Your task to perform on an android device: toggle show notifications on the lock screen Image 0: 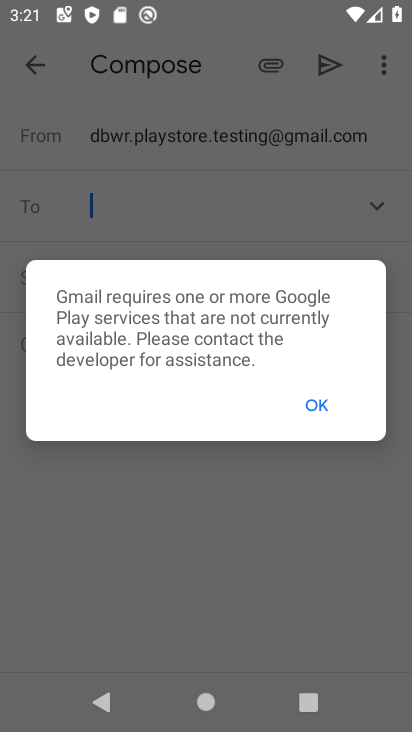
Step 0: press home button
Your task to perform on an android device: toggle show notifications on the lock screen Image 1: 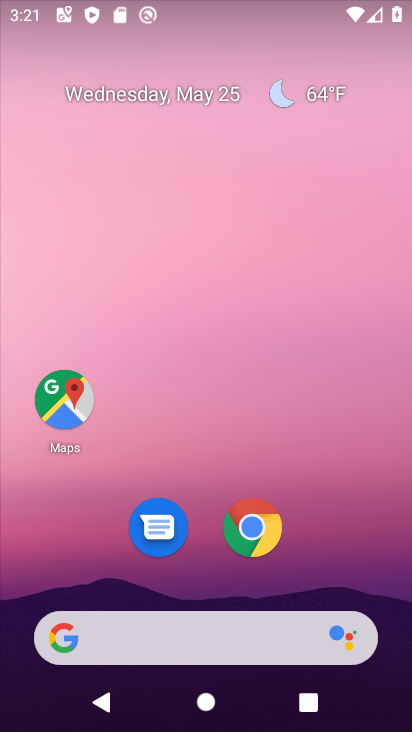
Step 1: drag from (175, 562) to (275, 0)
Your task to perform on an android device: toggle show notifications on the lock screen Image 2: 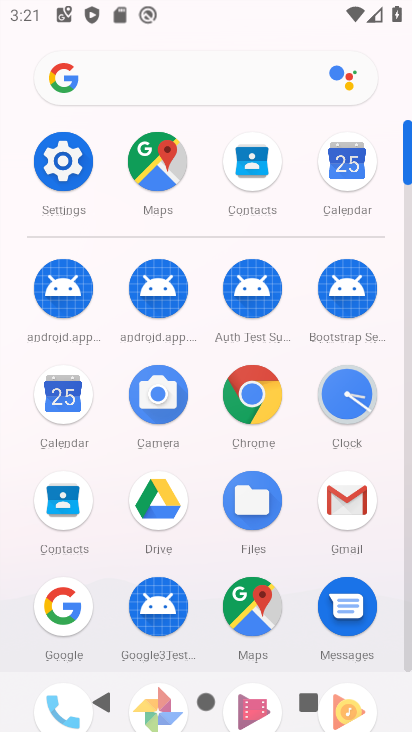
Step 2: click (57, 167)
Your task to perform on an android device: toggle show notifications on the lock screen Image 3: 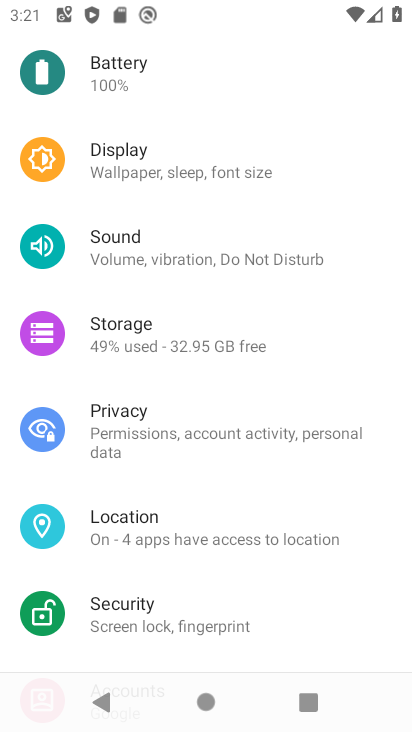
Step 3: drag from (330, 162) to (166, 654)
Your task to perform on an android device: toggle show notifications on the lock screen Image 4: 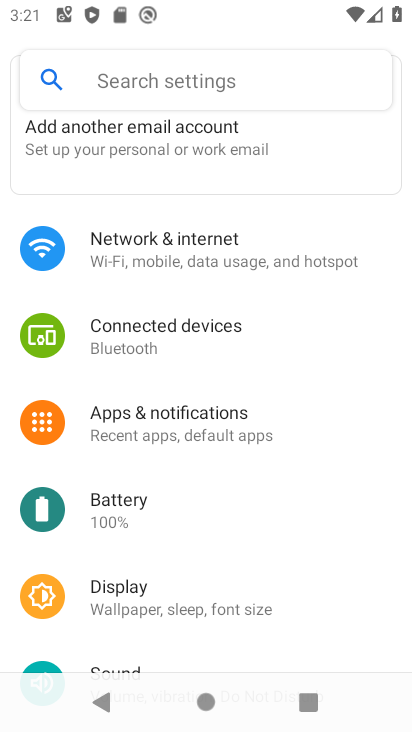
Step 4: click (183, 245)
Your task to perform on an android device: toggle show notifications on the lock screen Image 5: 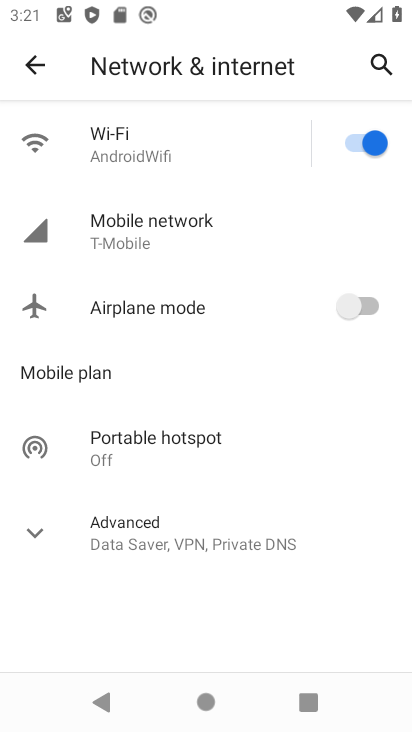
Step 5: click (15, 50)
Your task to perform on an android device: toggle show notifications on the lock screen Image 6: 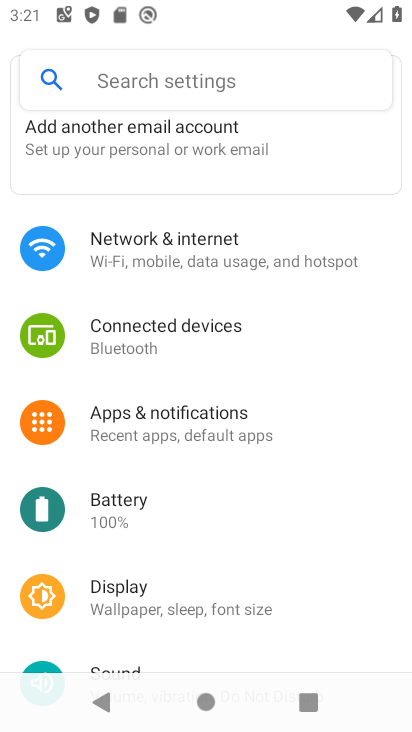
Step 6: click (171, 435)
Your task to perform on an android device: toggle show notifications on the lock screen Image 7: 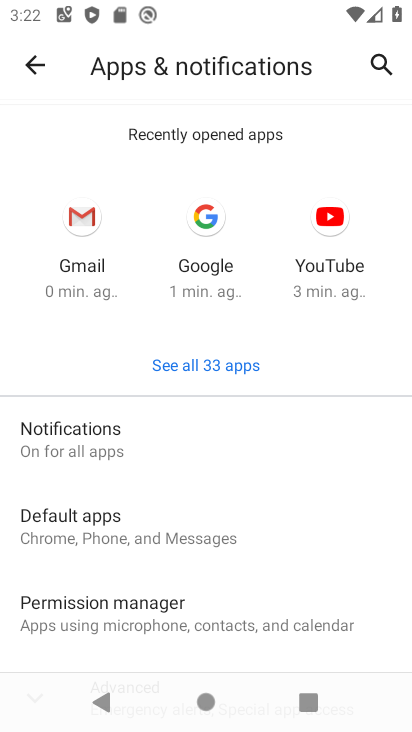
Step 7: drag from (126, 583) to (190, 18)
Your task to perform on an android device: toggle show notifications on the lock screen Image 8: 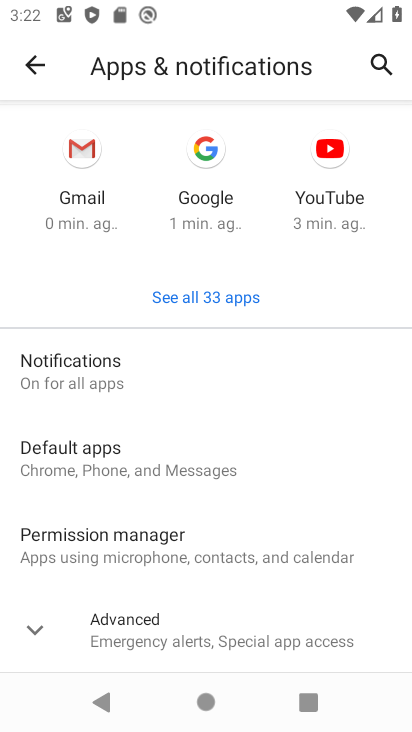
Step 8: drag from (175, 608) to (315, 92)
Your task to perform on an android device: toggle show notifications on the lock screen Image 9: 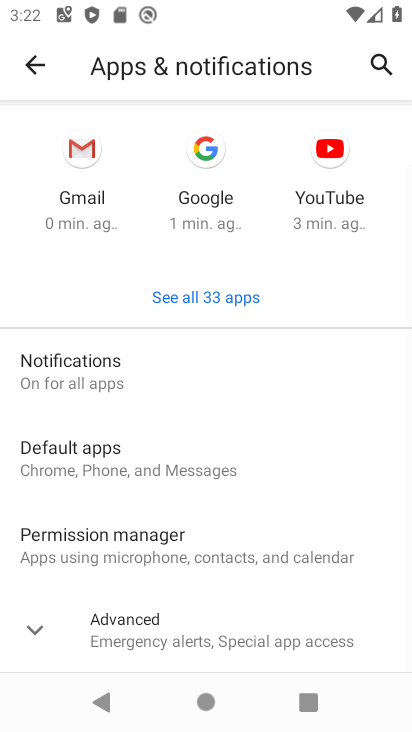
Step 9: click (173, 620)
Your task to perform on an android device: toggle show notifications on the lock screen Image 10: 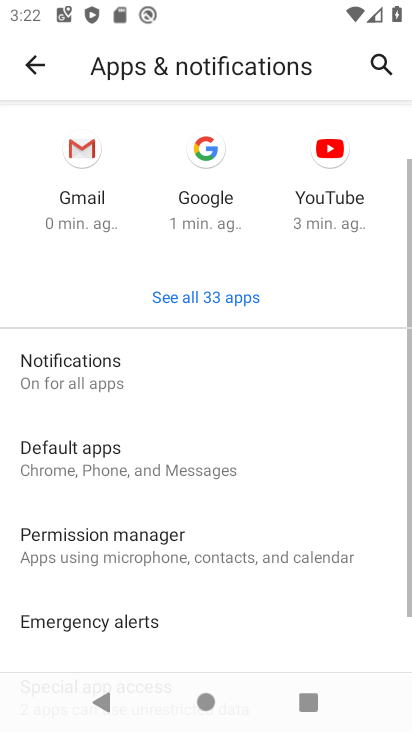
Step 10: drag from (193, 613) to (260, 75)
Your task to perform on an android device: toggle show notifications on the lock screen Image 11: 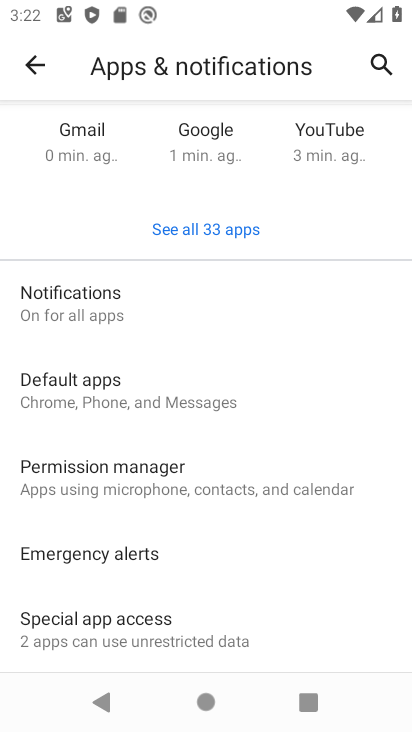
Step 11: click (137, 293)
Your task to perform on an android device: toggle show notifications on the lock screen Image 12: 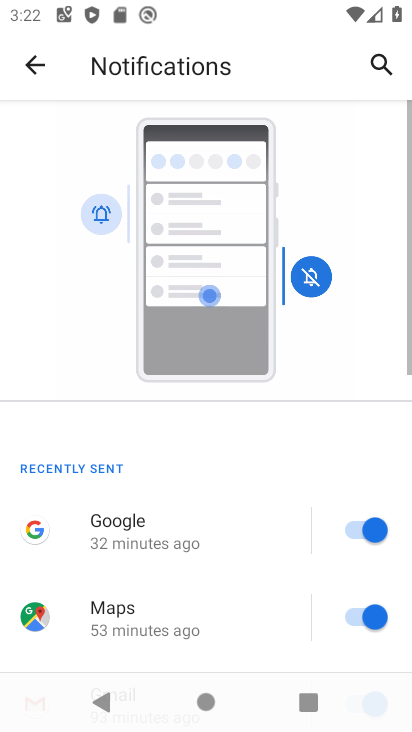
Step 12: drag from (162, 592) to (238, 15)
Your task to perform on an android device: toggle show notifications on the lock screen Image 13: 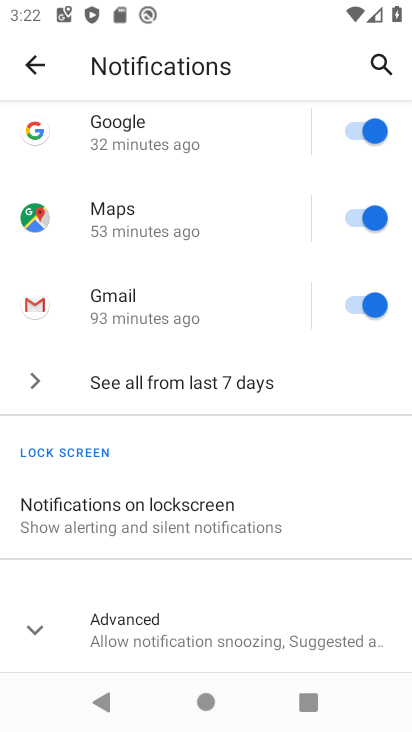
Step 13: click (142, 511)
Your task to perform on an android device: toggle show notifications on the lock screen Image 14: 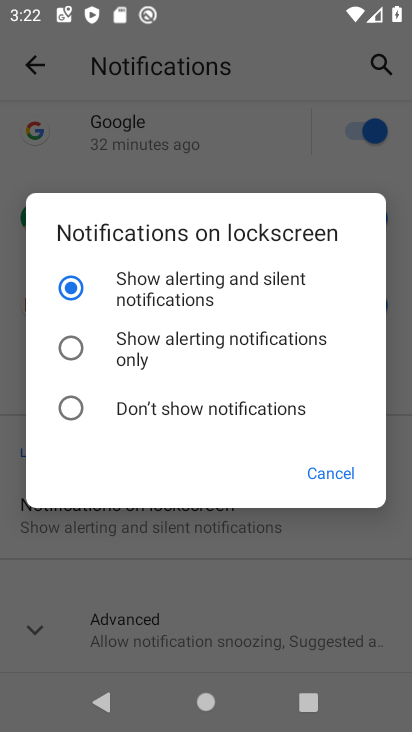
Step 14: click (66, 281)
Your task to perform on an android device: toggle show notifications on the lock screen Image 15: 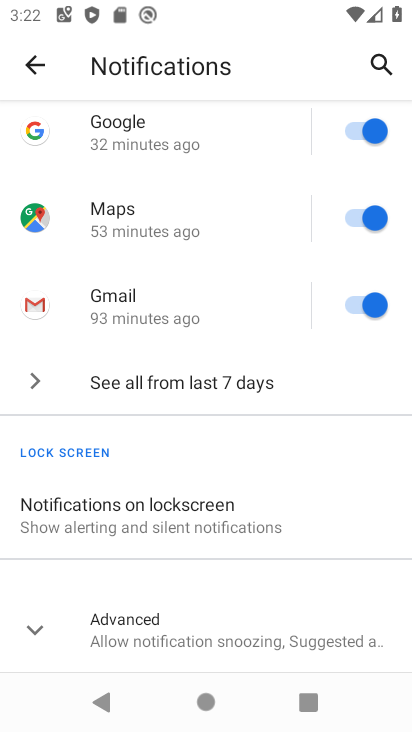
Step 15: task complete